Your task to perform on an android device: change the clock display to digital Image 0: 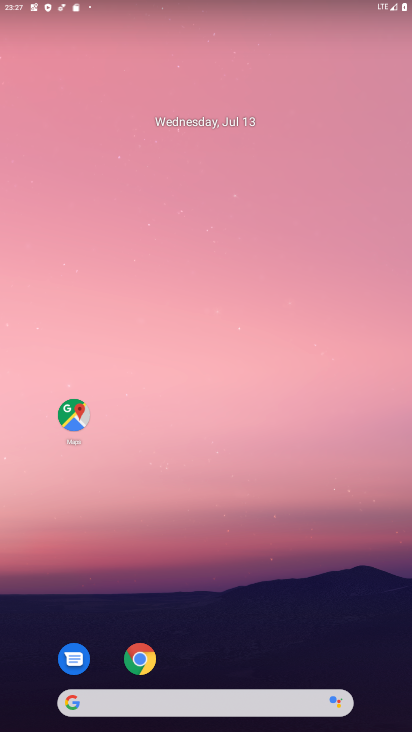
Step 0: drag from (388, 653) to (314, 172)
Your task to perform on an android device: change the clock display to digital Image 1: 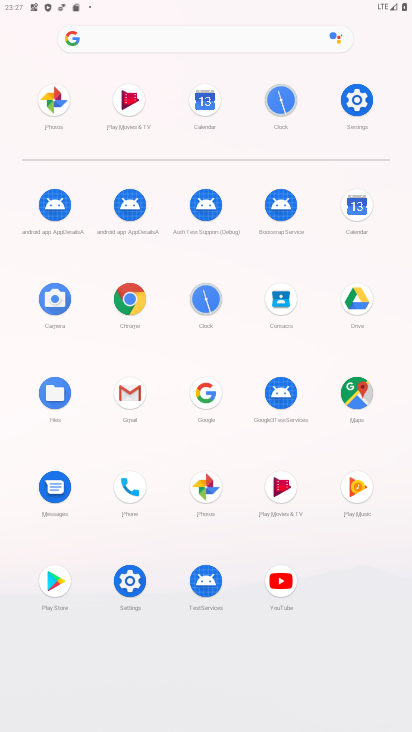
Step 1: click (203, 299)
Your task to perform on an android device: change the clock display to digital Image 2: 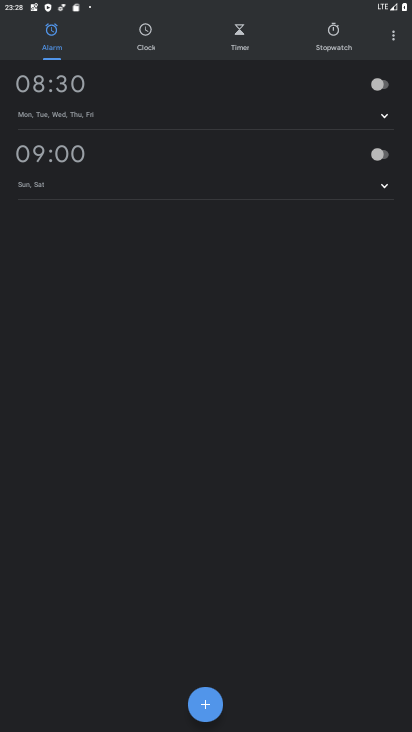
Step 2: click (391, 41)
Your task to perform on an android device: change the clock display to digital Image 3: 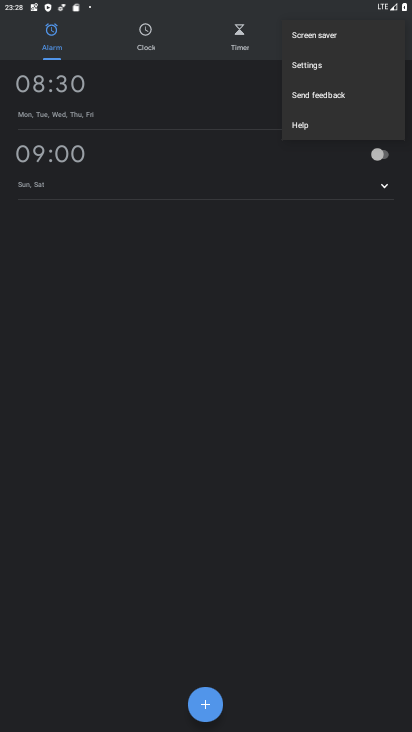
Step 3: click (305, 68)
Your task to perform on an android device: change the clock display to digital Image 4: 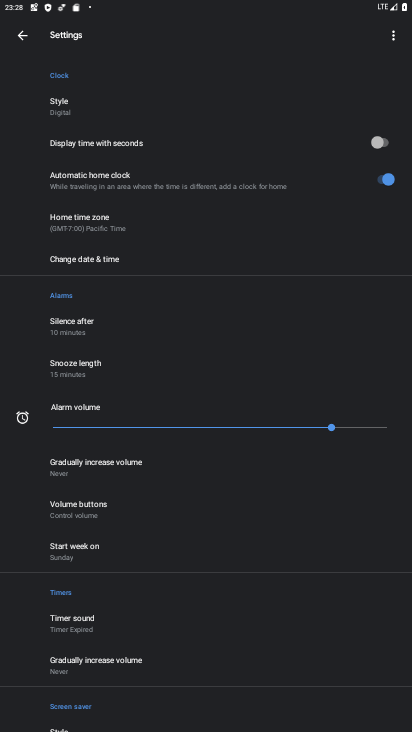
Step 4: click (56, 110)
Your task to perform on an android device: change the clock display to digital Image 5: 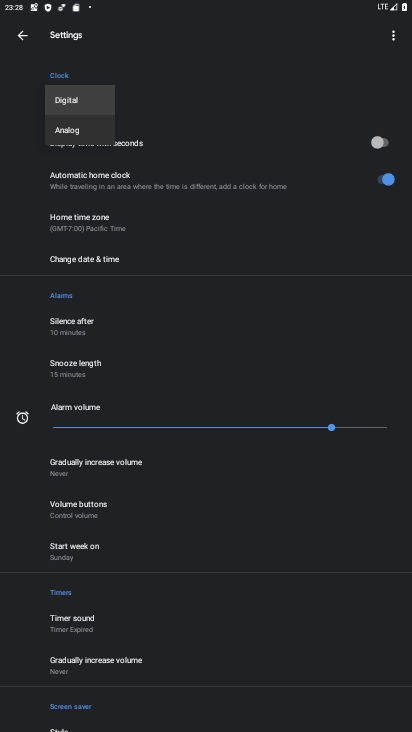
Step 5: click (74, 105)
Your task to perform on an android device: change the clock display to digital Image 6: 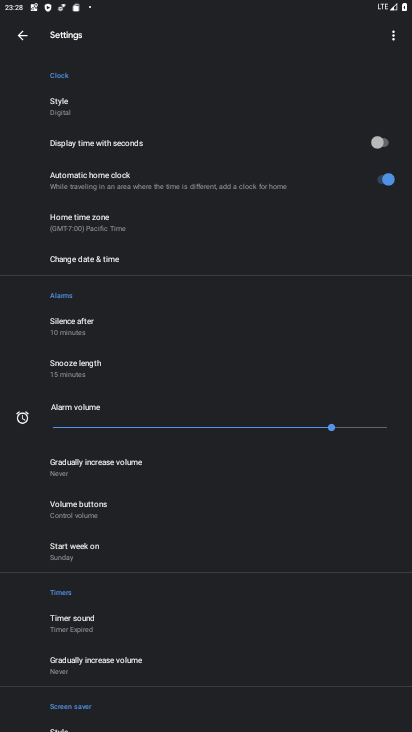
Step 6: task complete